Your task to perform on an android device: Open the web browser Image 0: 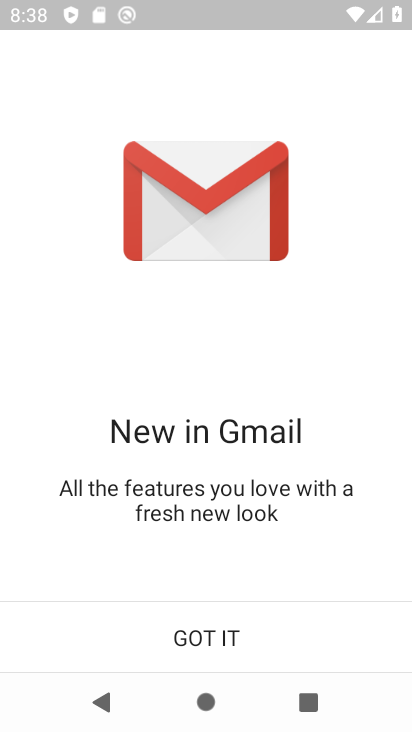
Step 0: press back button
Your task to perform on an android device: Open the web browser Image 1: 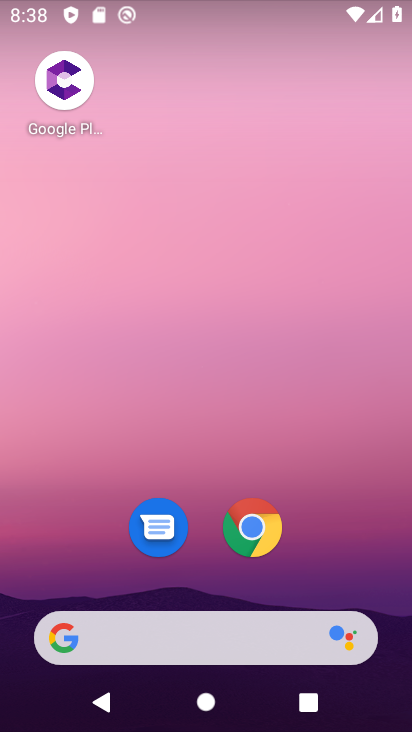
Step 1: drag from (348, 587) to (243, 66)
Your task to perform on an android device: Open the web browser Image 2: 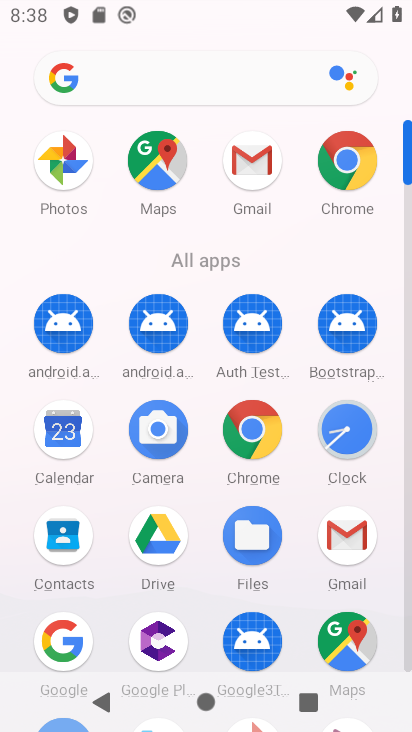
Step 2: click (253, 427)
Your task to perform on an android device: Open the web browser Image 3: 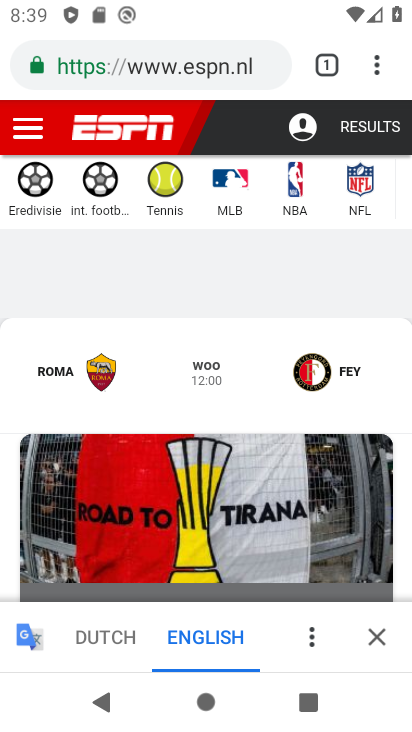
Step 3: task complete